Your task to perform on an android device: Open display settings Image 0: 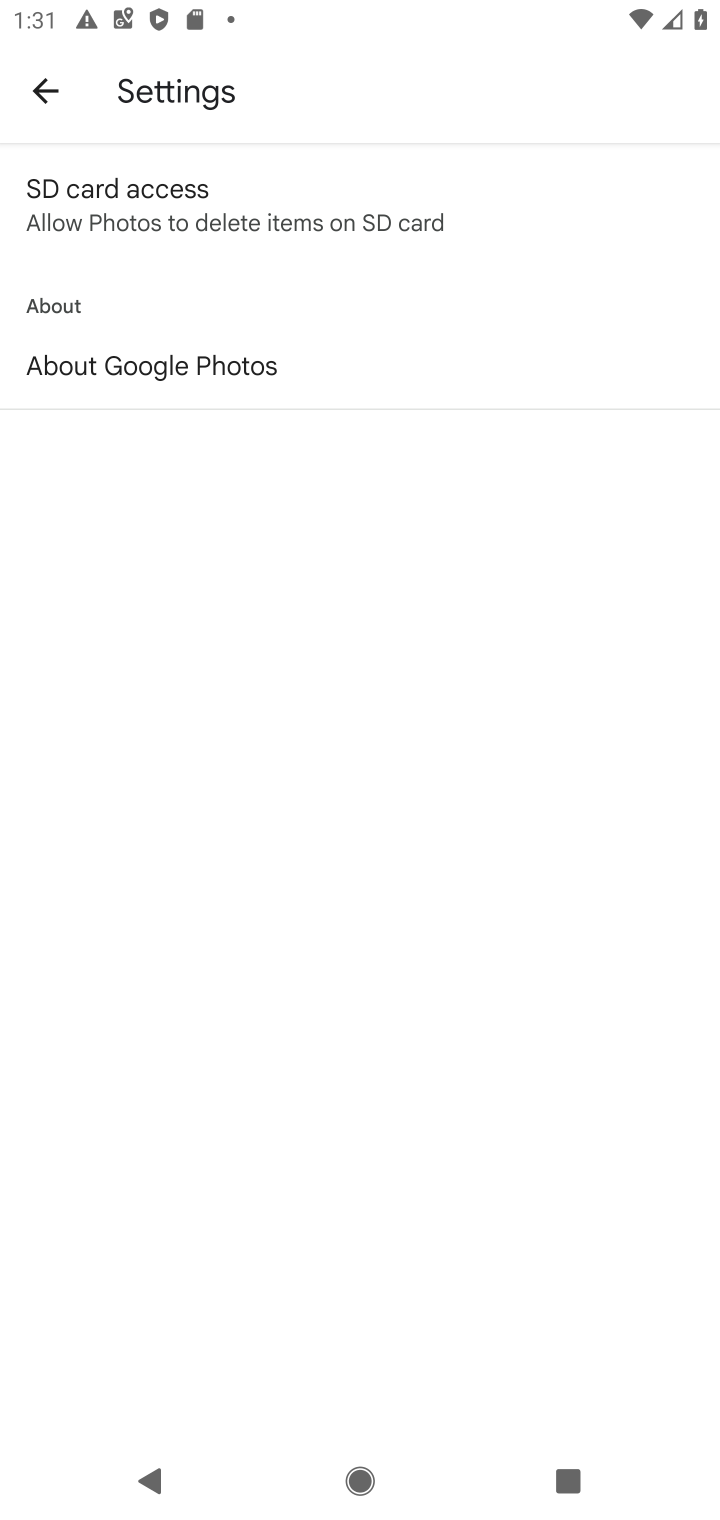
Step 0: press home button
Your task to perform on an android device: Open display settings Image 1: 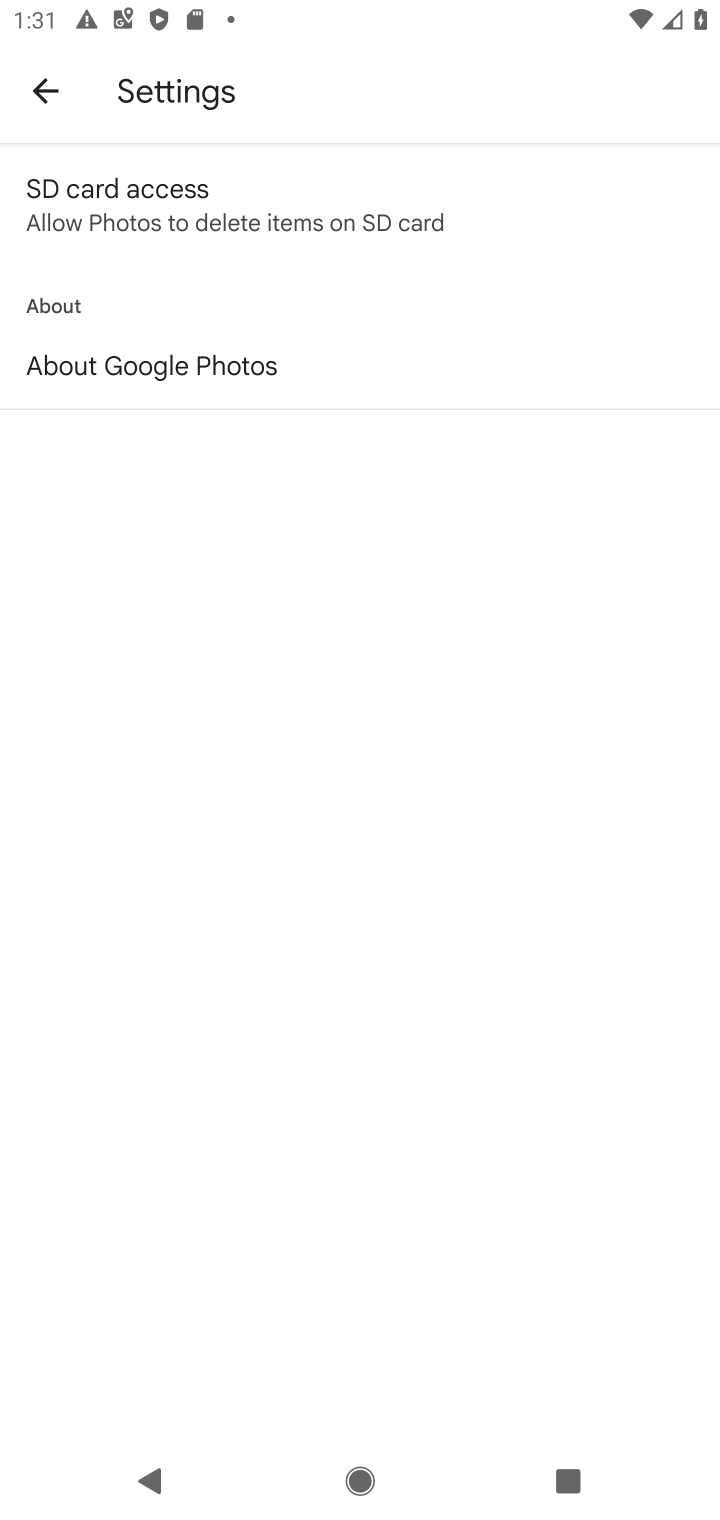
Step 1: press home button
Your task to perform on an android device: Open display settings Image 2: 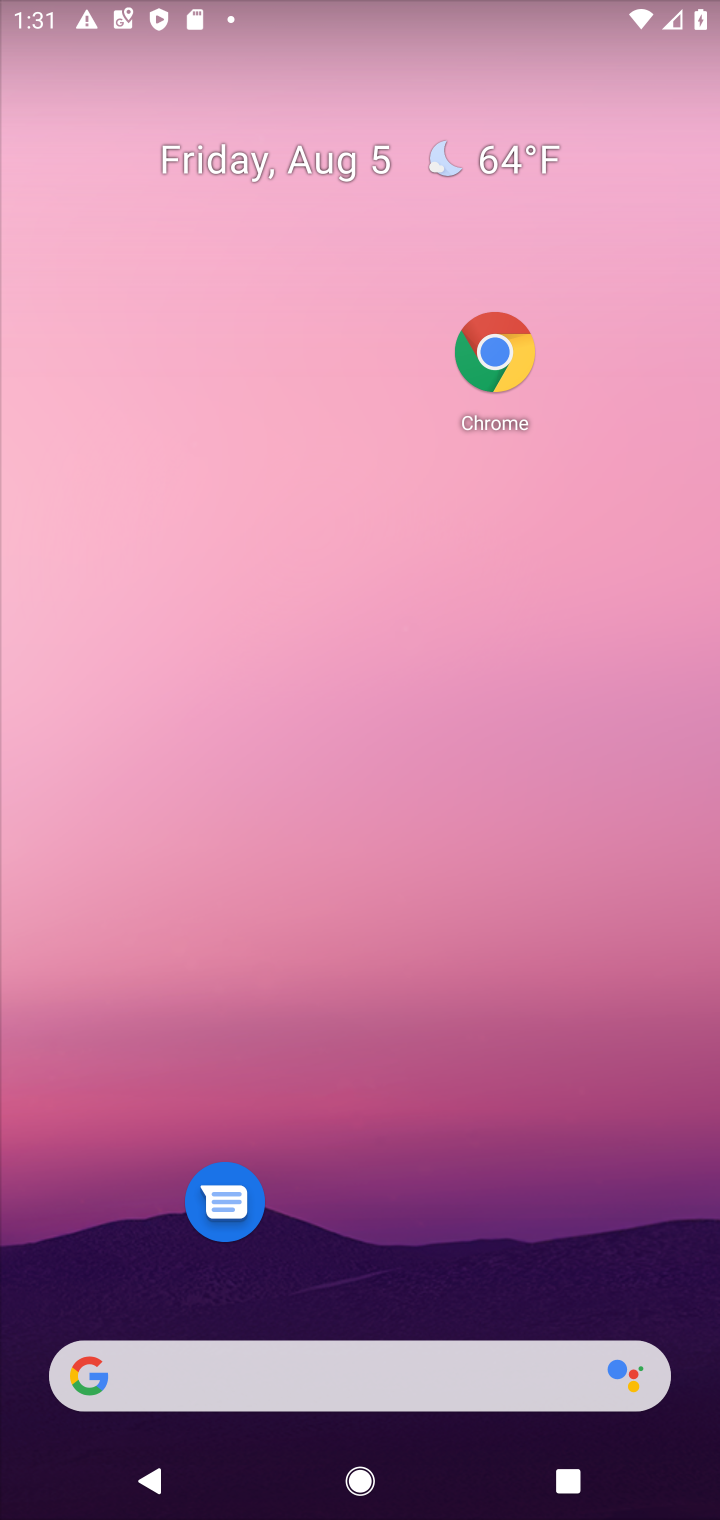
Step 2: press home button
Your task to perform on an android device: Open display settings Image 3: 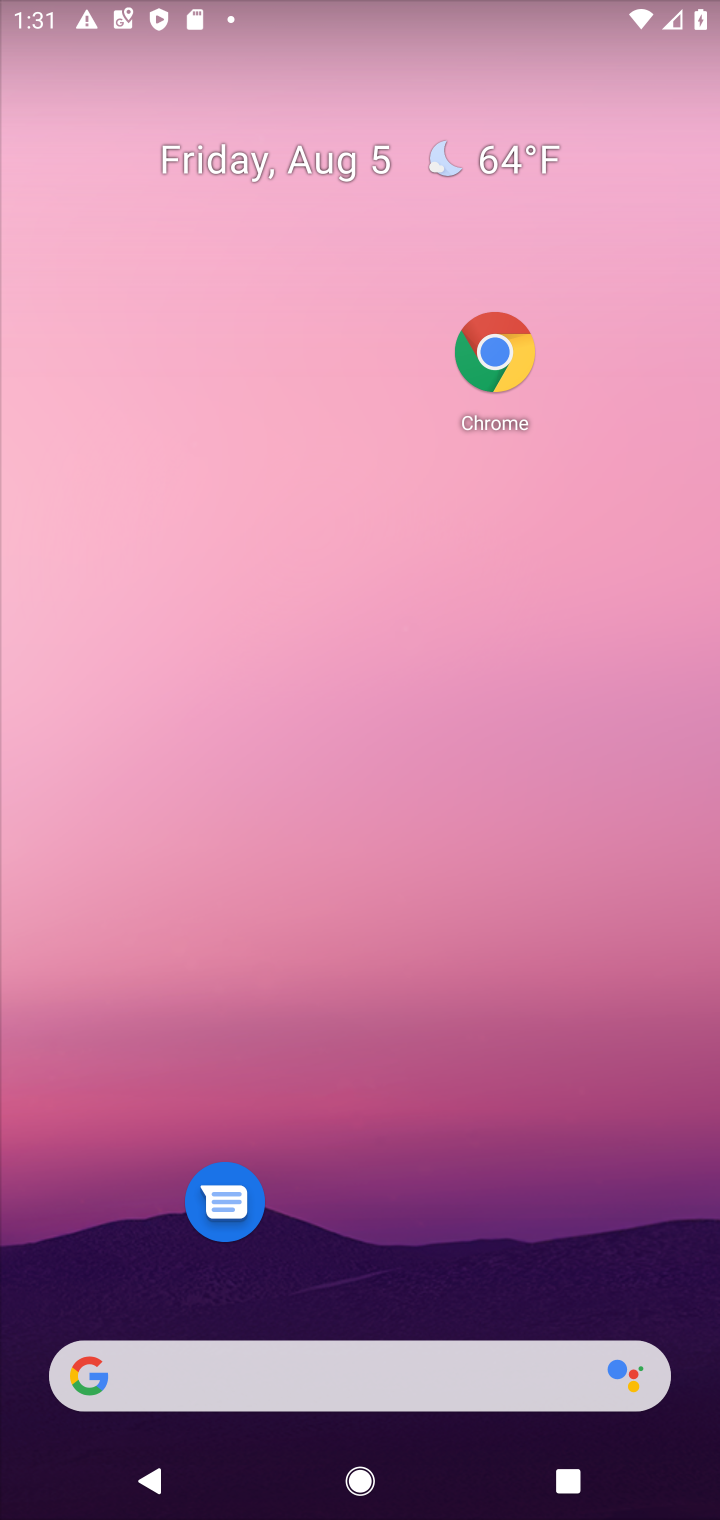
Step 3: drag from (573, 1214) to (307, 16)
Your task to perform on an android device: Open display settings Image 4: 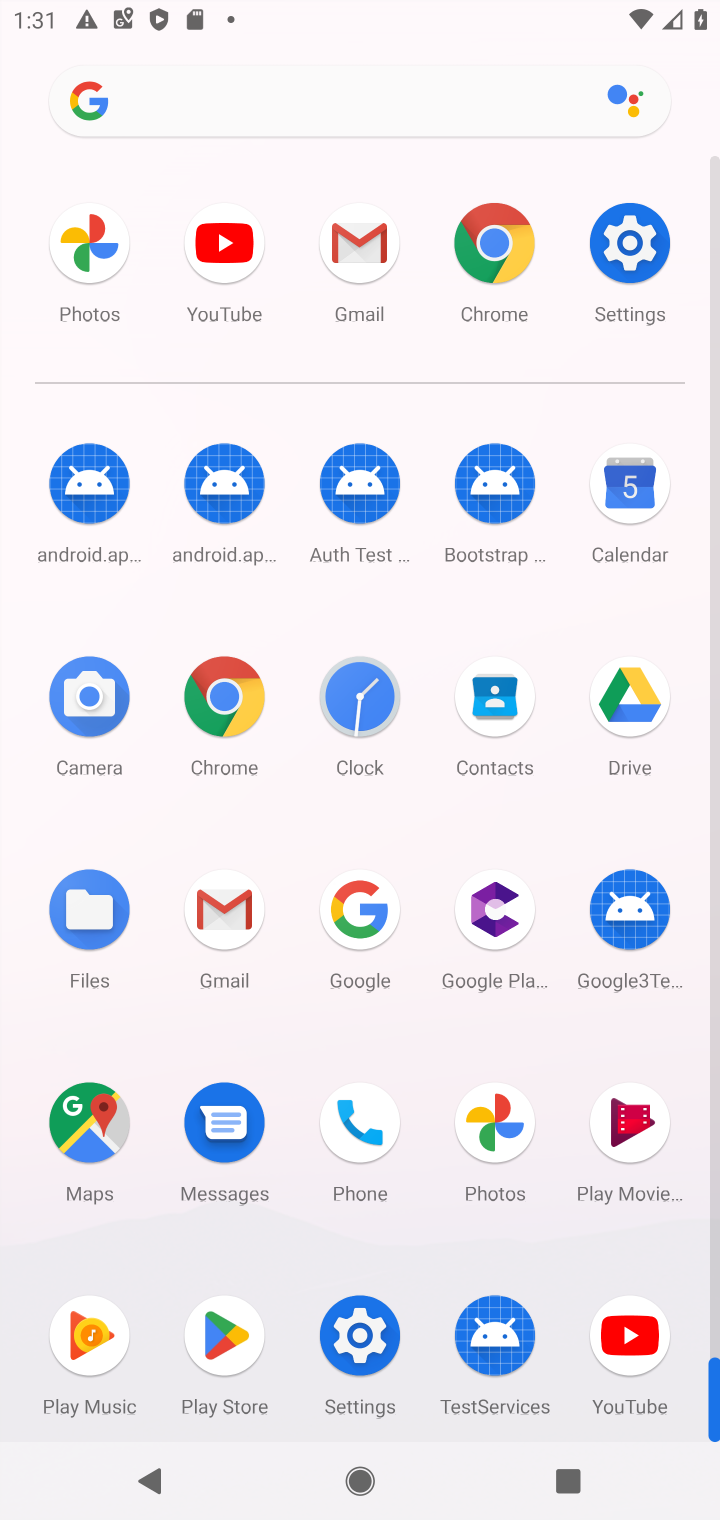
Step 4: click (623, 262)
Your task to perform on an android device: Open display settings Image 5: 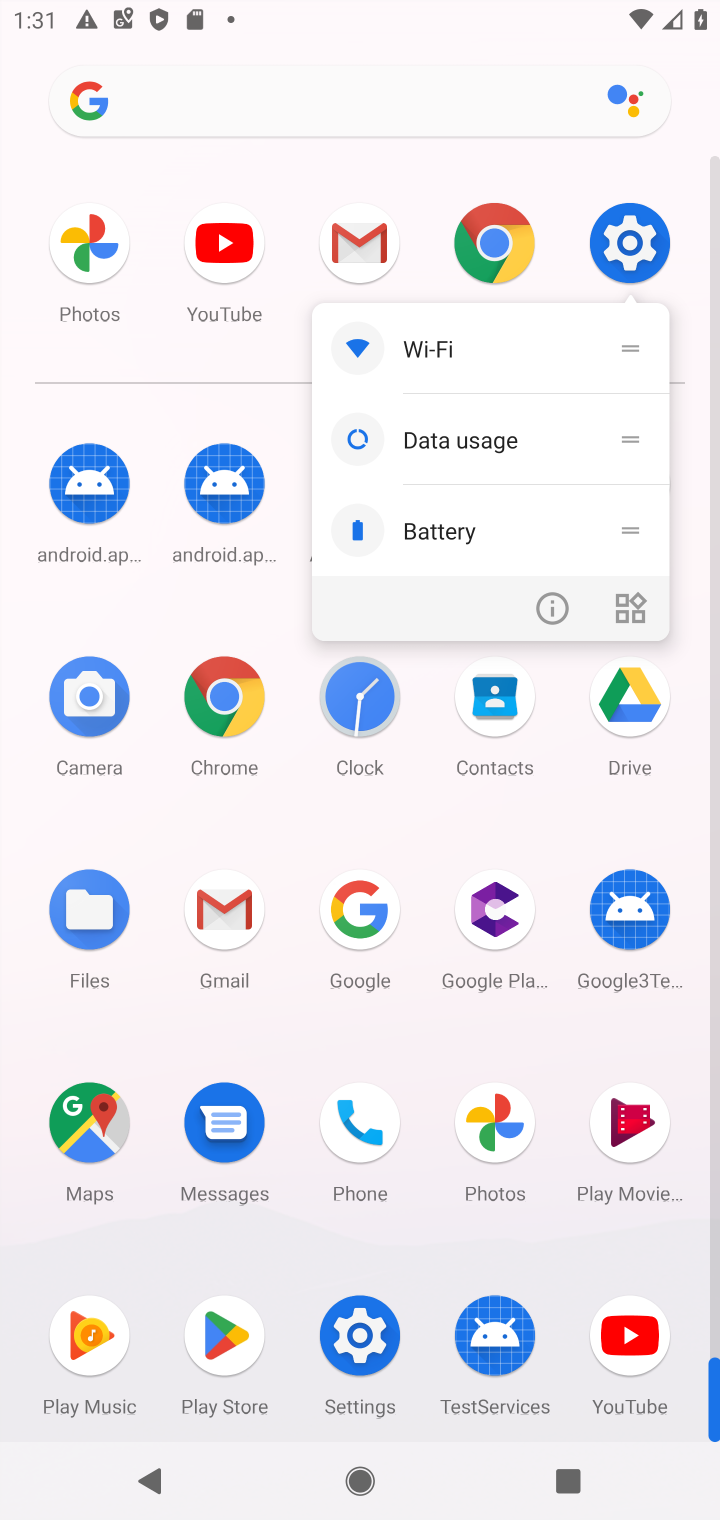
Step 5: click (362, 1345)
Your task to perform on an android device: Open display settings Image 6: 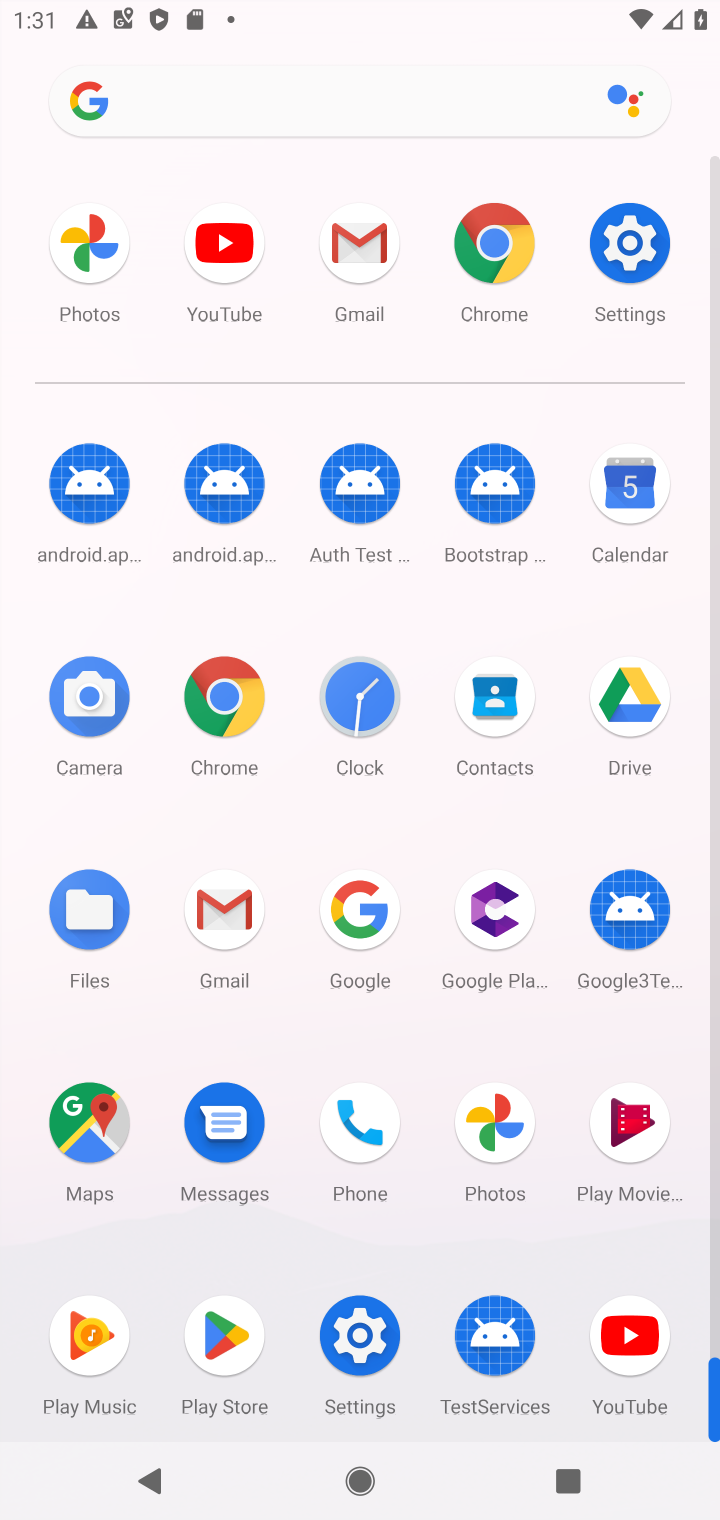
Step 6: click (362, 1345)
Your task to perform on an android device: Open display settings Image 7: 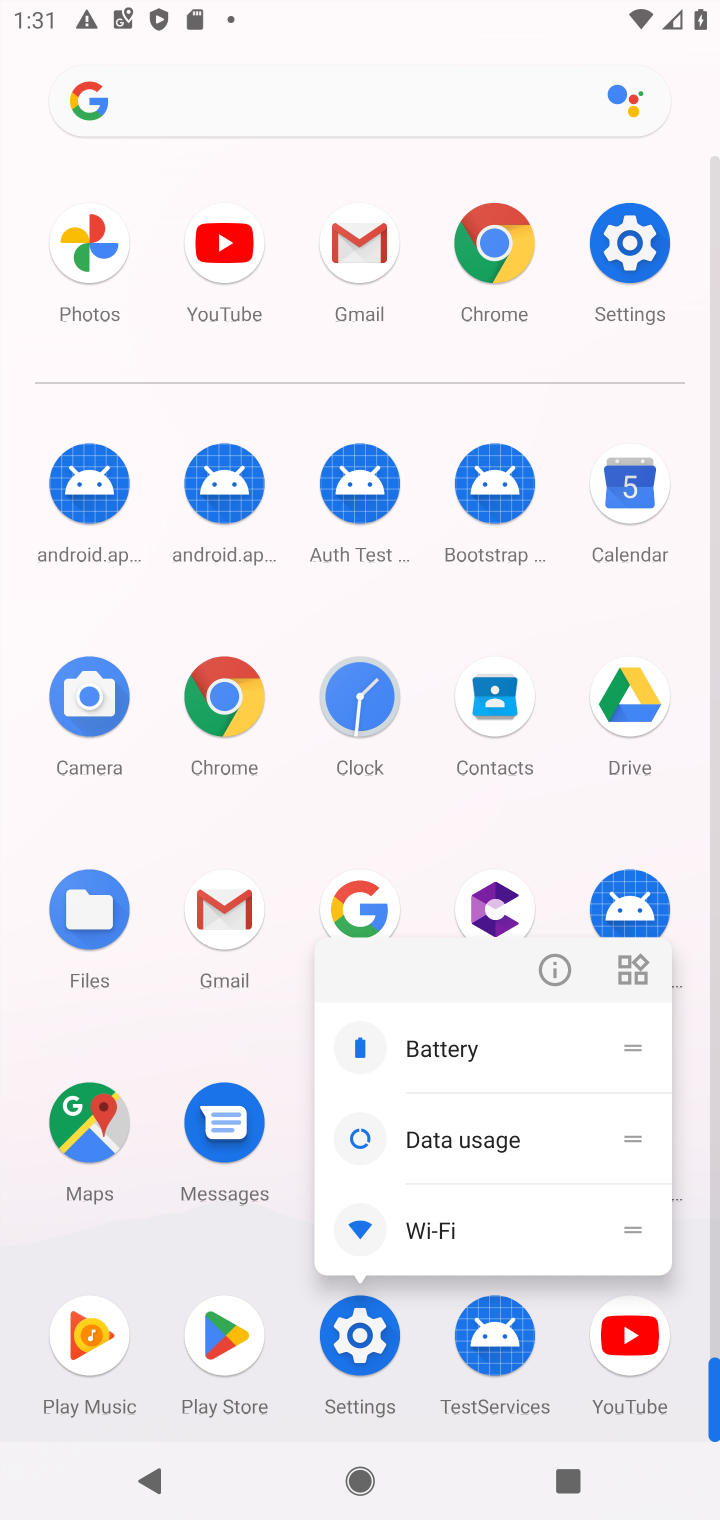
Step 7: click (364, 1327)
Your task to perform on an android device: Open display settings Image 8: 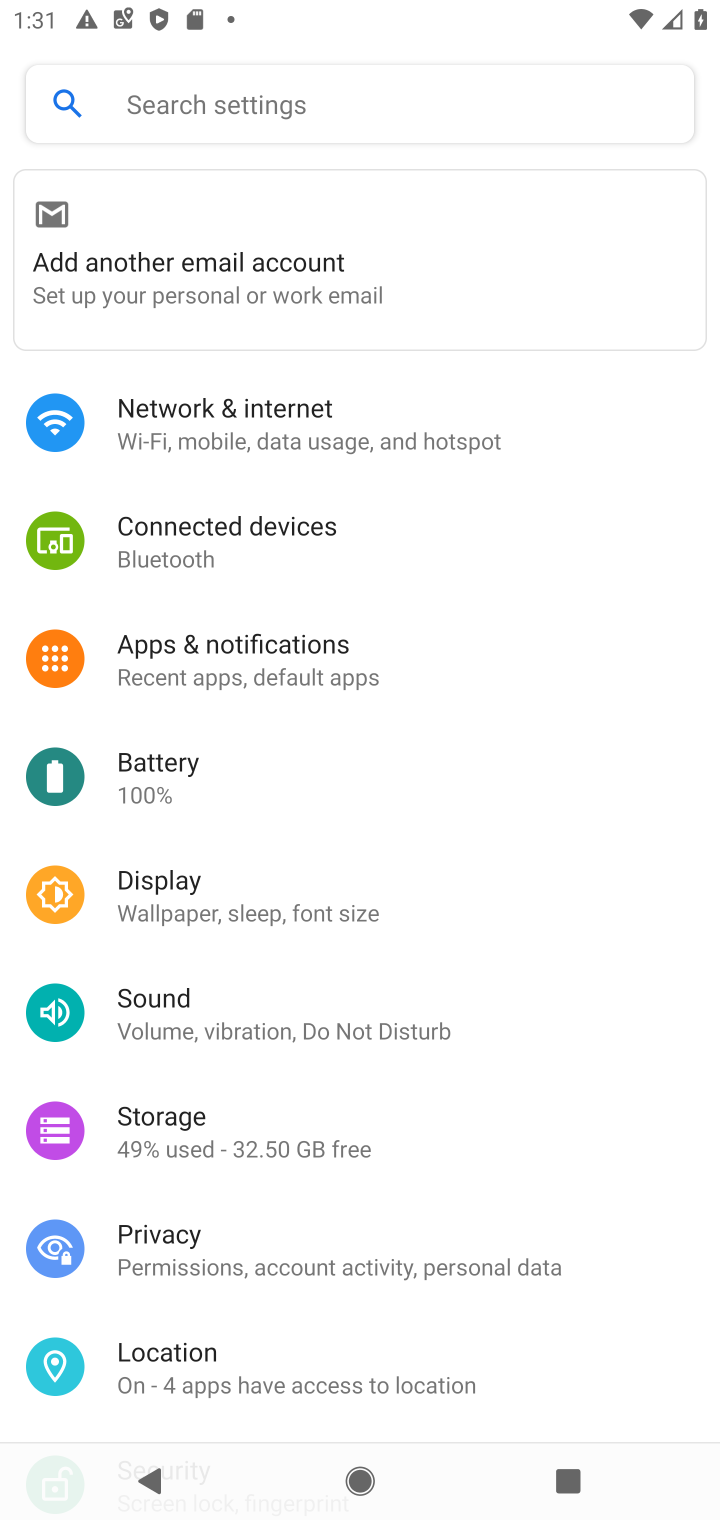
Step 8: click (170, 902)
Your task to perform on an android device: Open display settings Image 9: 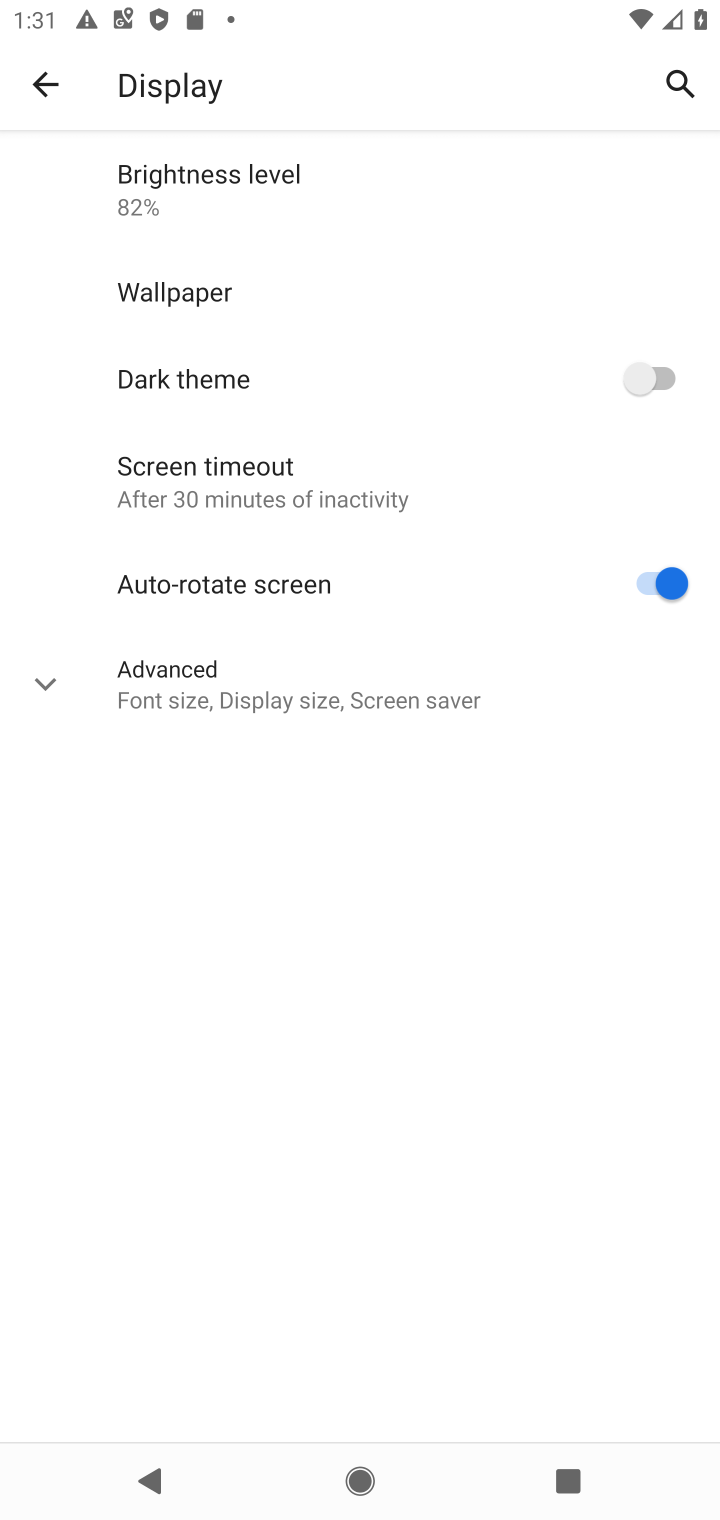
Step 9: task complete